Your task to perform on an android device: find photos in the google photos app Image 0: 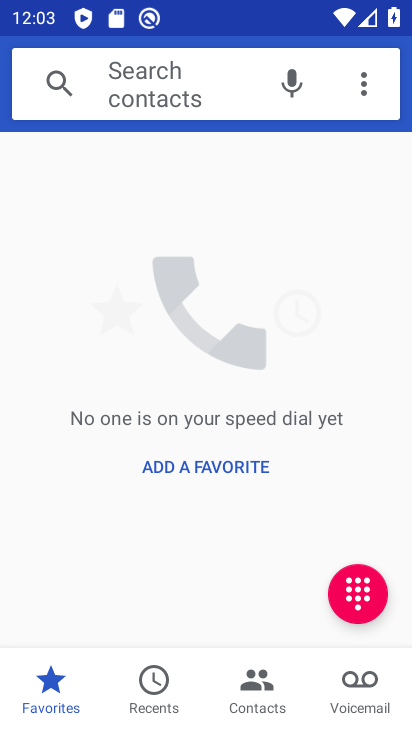
Step 0: press back button
Your task to perform on an android device: find photos in the google photos app Image 1: 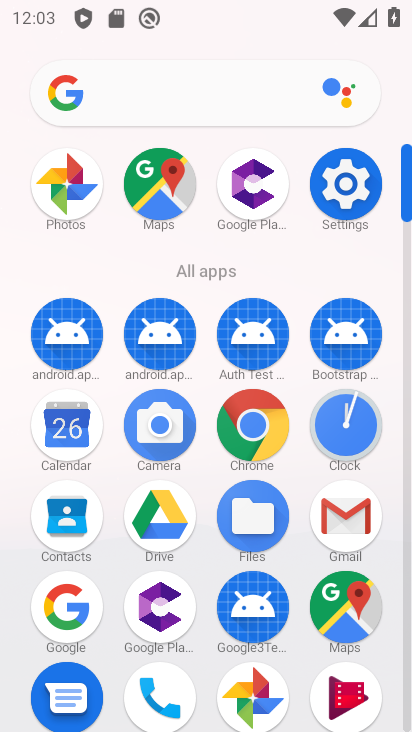
Step 1: click (244, 680)
Your task to perform on an android device: find photos in the google photos app Image 2: 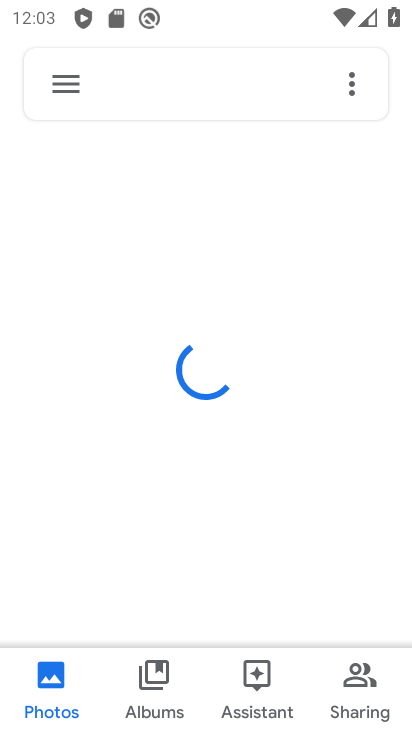
Step 2: click (54, 680)
Your task to perform on an android device: find photos in the google photos app Image 3: 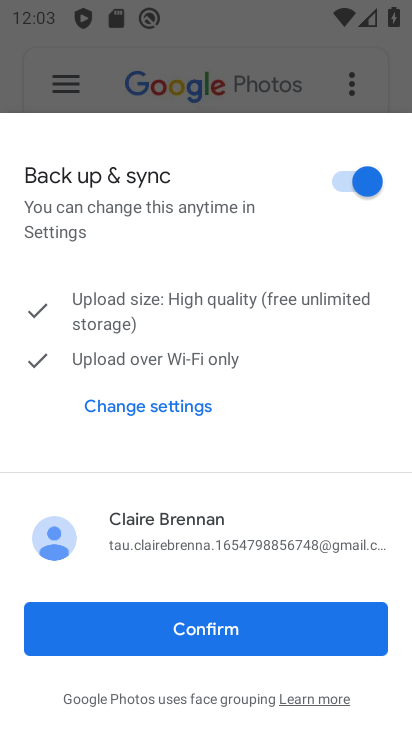
Step 3: click (163, 608)
Your task to perform on an android device: find photos in the google photos app Image 4: 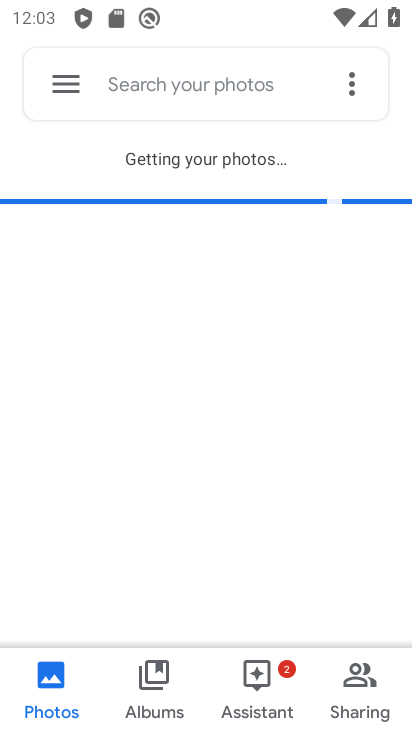
Step 4: click (56, 682)
Your task to perform on an android device: find photos in the google photos app Image 5: 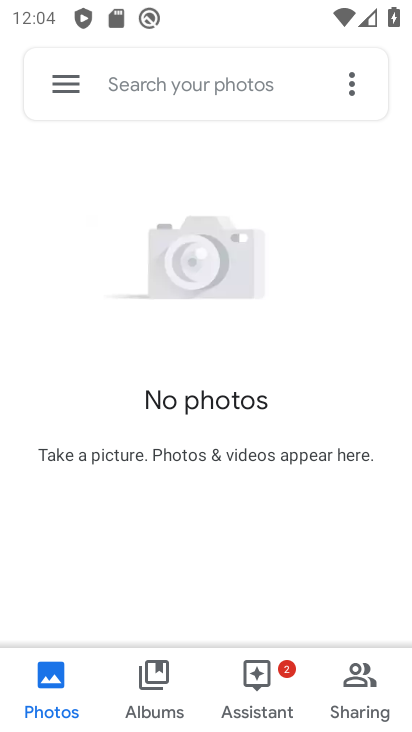
Step 5: task complete